Your task to perform on an android device: turn off picture-in-picture Image 0: 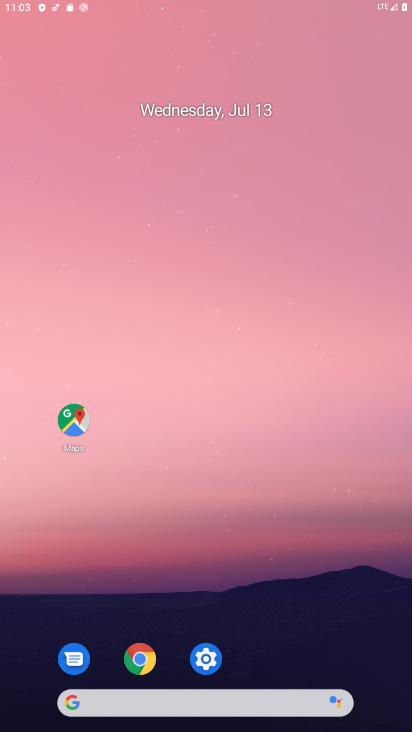
Step 0: click (262, 114)
Your task to perform on an android device: turn off picture-in-picture Image 1: 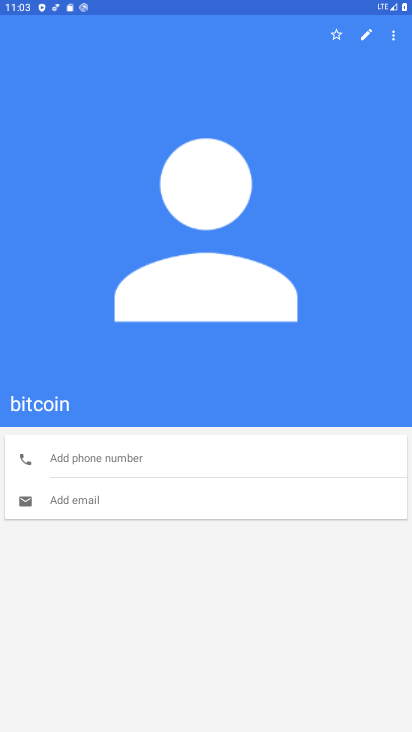
Step 1: press back button
Your task to perform on an android device: turn off picture-in-picture Image 2: 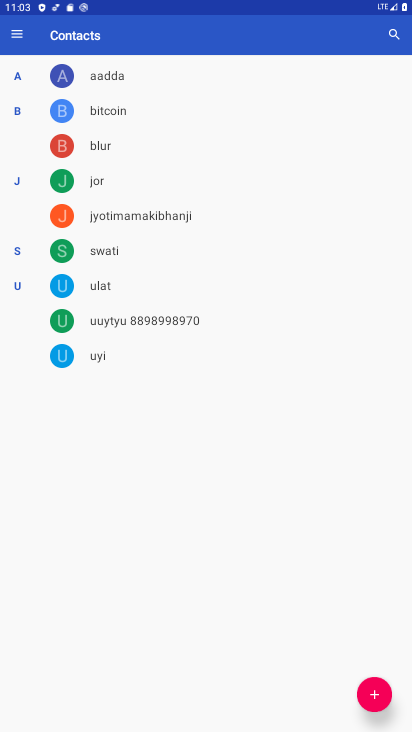
Step 2: press back button
Your task to perform on an android device: turn off picture-in-picture Image 3: 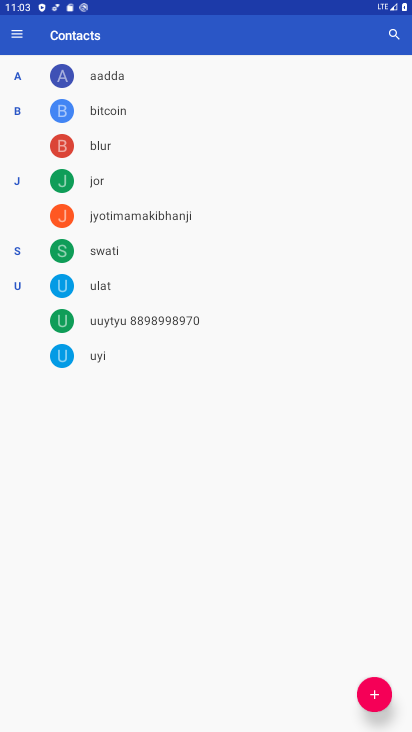
Step 3: press home button
Your task to perform on an android device: turn off picture-in-picture Image 4: 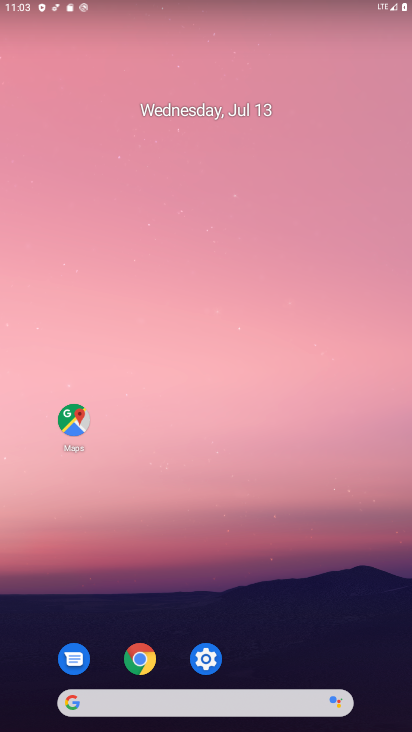
Step 4: drag from (253, 707) to (59, 29)
Your task to perform on an android device: turn off picture-in-picture Image 5: 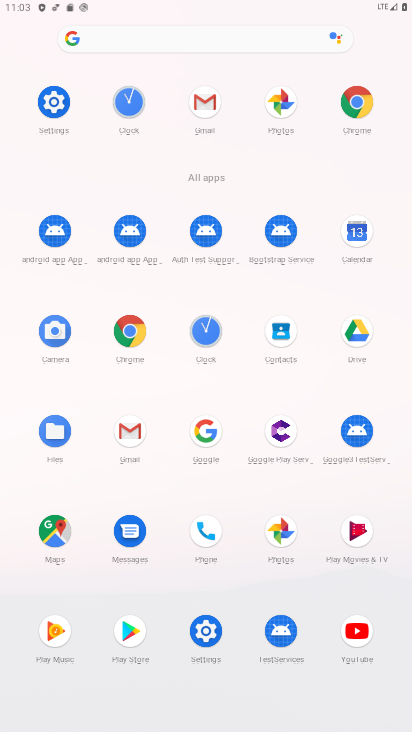
Step 5: click (352, 106)
Your task to perform on an android device: turn off picture-in-picture Image 6: 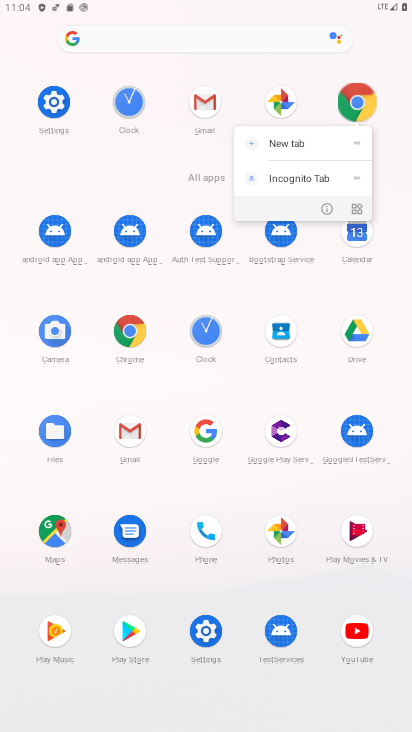
Step 6: click (352, 106)
Your task to perform on an android device: turn off picture-in-picture Image 7: 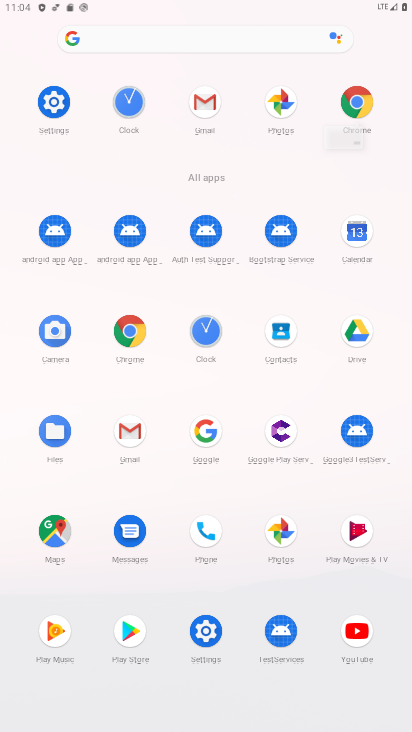
Step 7: click (352, 106)
Your task to perform on an android device: turn off picture-in-picture Image 8: 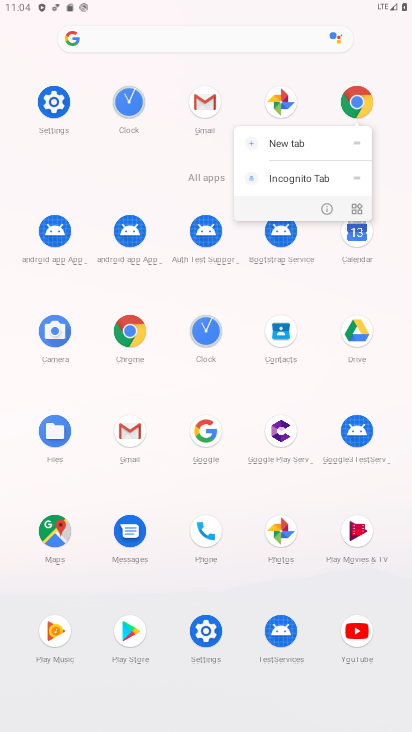
Step 8: click (353, 107)
Your task to perform on an android device: turn off picture-in-picture Image 9: 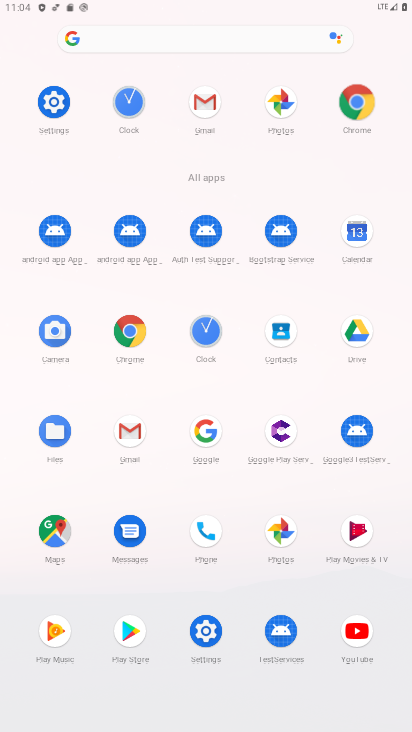
Step 9: click (353, 107)
Your task to perform on an android device: turn off picture-in-picture Image 10: 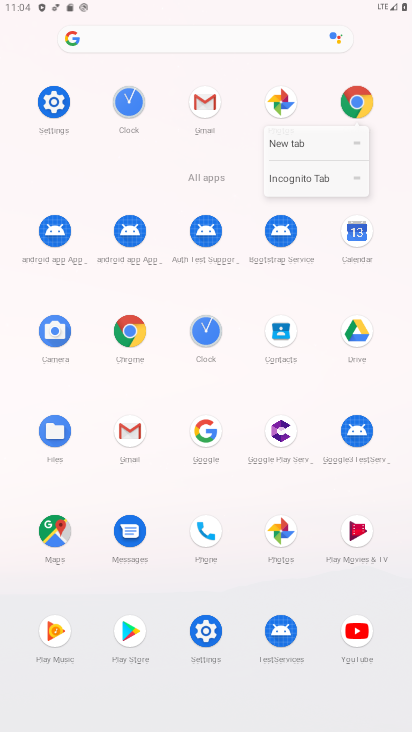
Step 10: click (354, 107)
Your task to perform on an android device: turn off picture-in-picture Image 11: 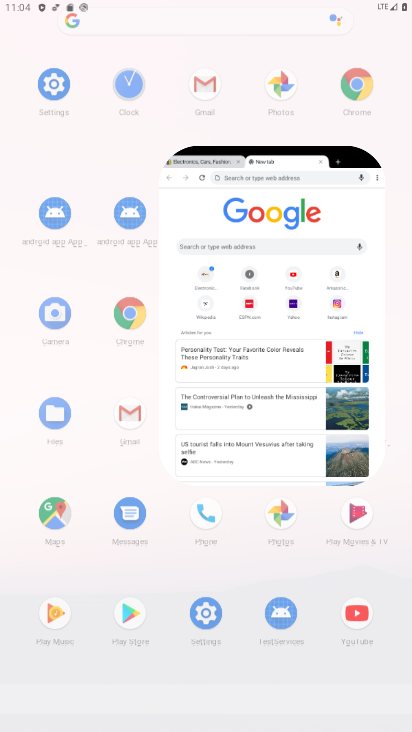
Step 11: click (354, 107)
Your task to perform on an android device: turn off picture-in-picture Image 12: 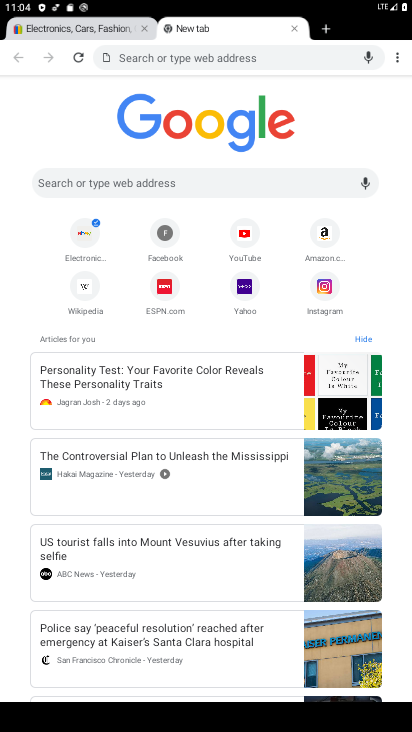
Step 12: press back button
Your task to perform on an android device: turn off picture-in-picture Image 13: 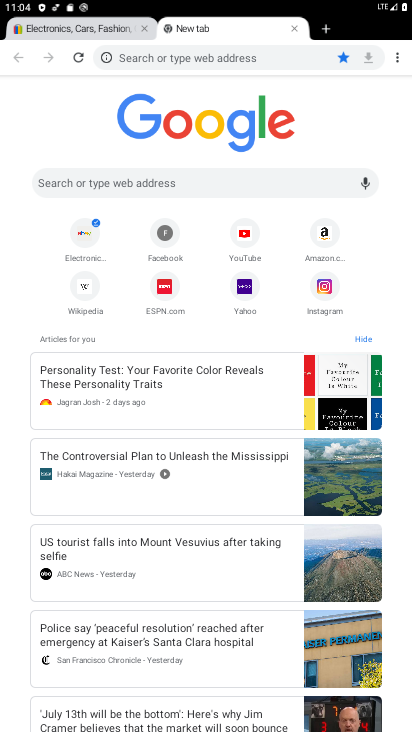
Step 13: press home button
Your task to perform on an android device: turn off picture-in-picture Image 14: 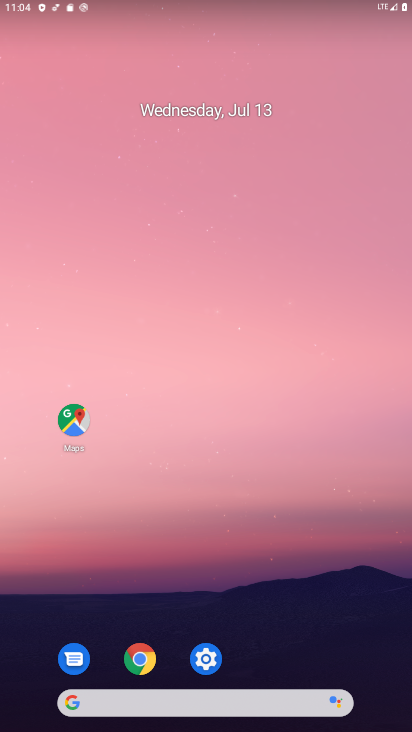
Step 14: drag from (293, 502) to (407, 6)
Your task to perform on an android device: turn off picture-in-picture Image 15: 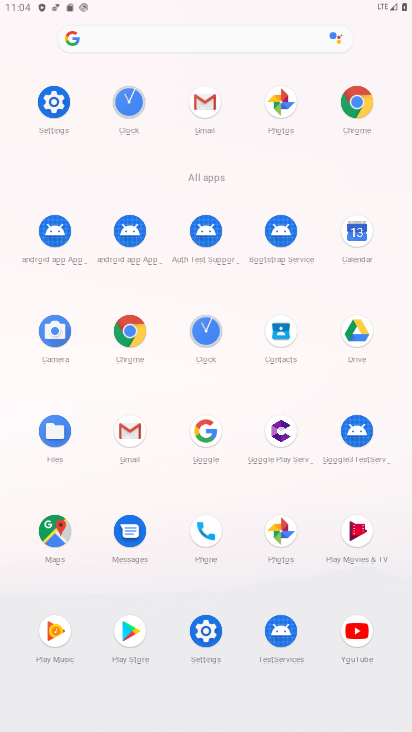
Step 15: click (359, 97)
Your task to perform on an android device: turn off picture-in-picture Image 16: 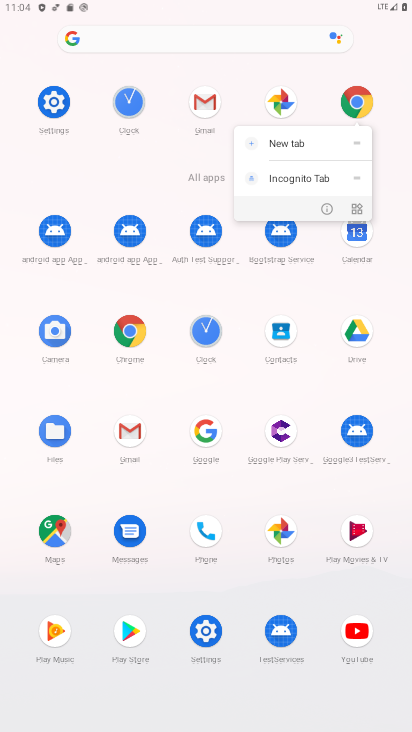
Step 16: click (325, 203)
Your task to perform on an android device: turn off picture-in-picture Image 17: 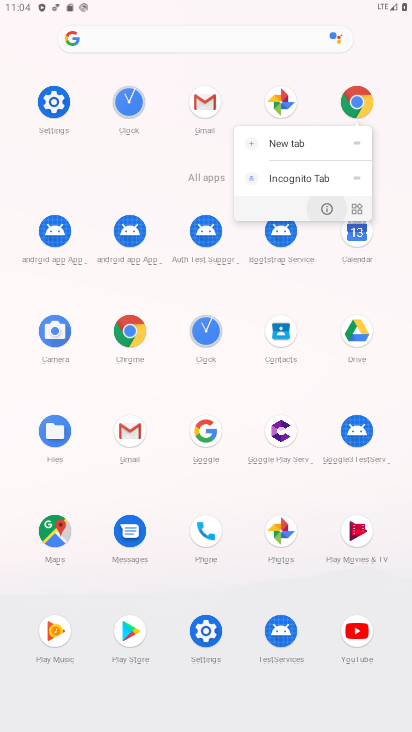
Step 17: click (325, 203)
Your task to perform on an android device: turn off picture-in-picture Image 18: 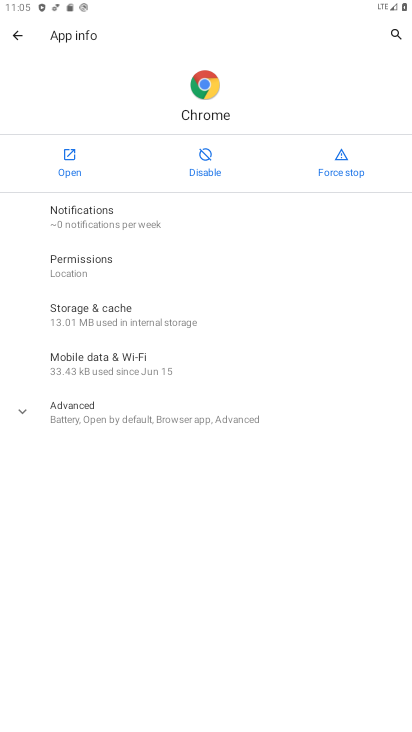
Step 18: click (91, 420)
Your task to perform on an android device: turn off picture-in-picture Image 19: 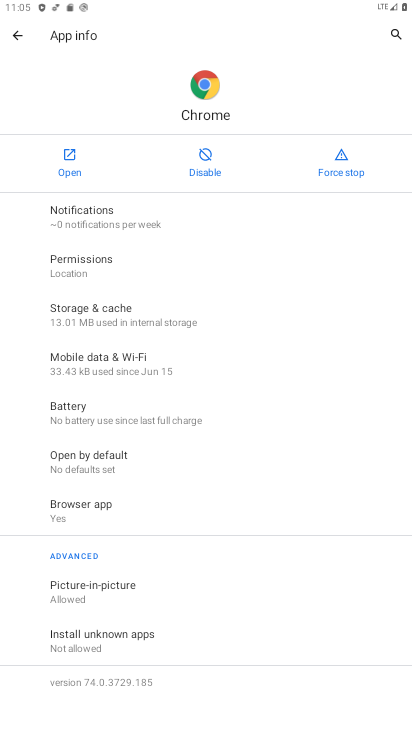
Step 19: click (73, 590)
Your task to perform on an android device: turn off picture-in-picture Image 20: 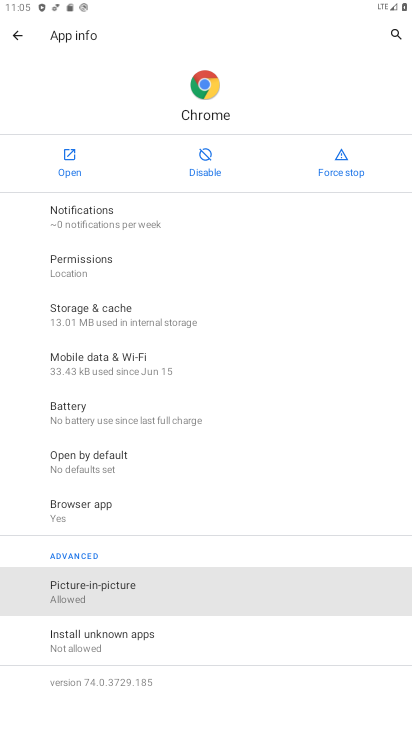
Step 20: click (73, 590)
Your task to perform on an android device: turn off picture-in-picture Image 21: 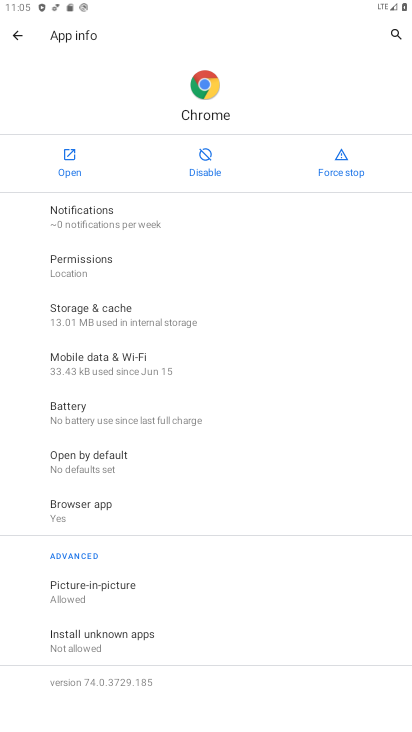
Step 21: click (74, 589)
Your task to perform on an android device: turn off picture-in-picture Image 22: 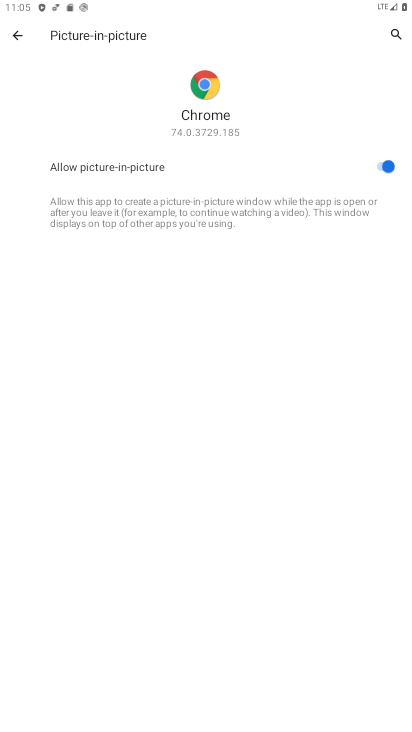
Step 22: click (389, 162)
Your task to perform on an android device: turn off picture-in-picture Image 23: 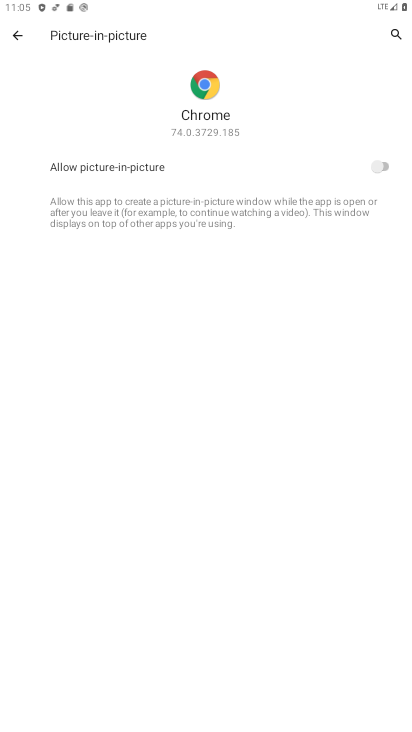
Step 23: task complete